Your task to perform on an android device: move an email to a new category in the gmail app Image 0: 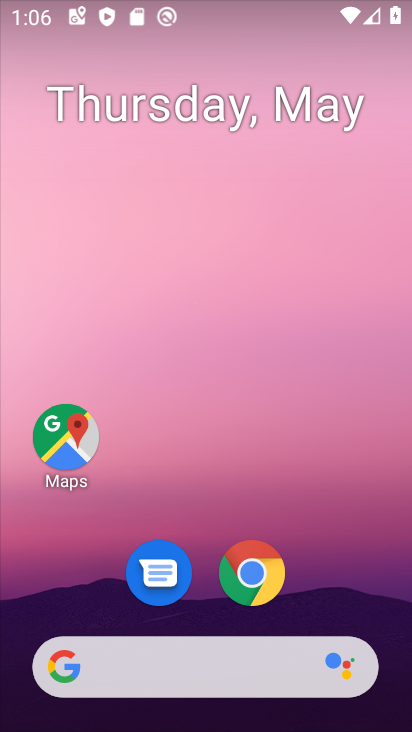
Step 0: drag from (228, 145) to (227, 39)
Your task to perform on an android device: move an email to a new category in the gmail app Image 1: 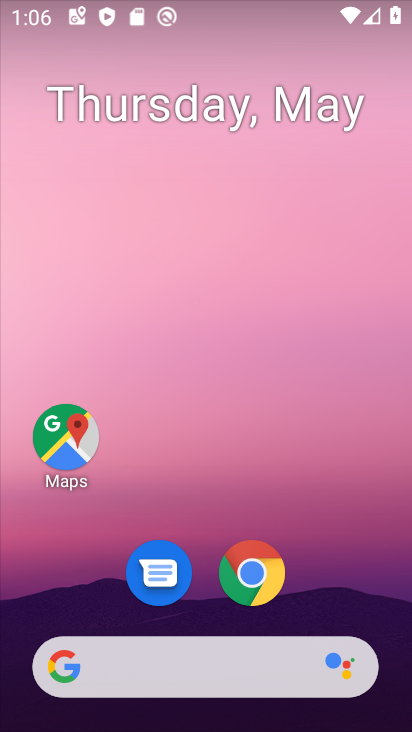
Step 1: drag from (228, 661) to (239, 70)
Your task to perform on an android device: move an email to a new category in the gmail app Image 2: 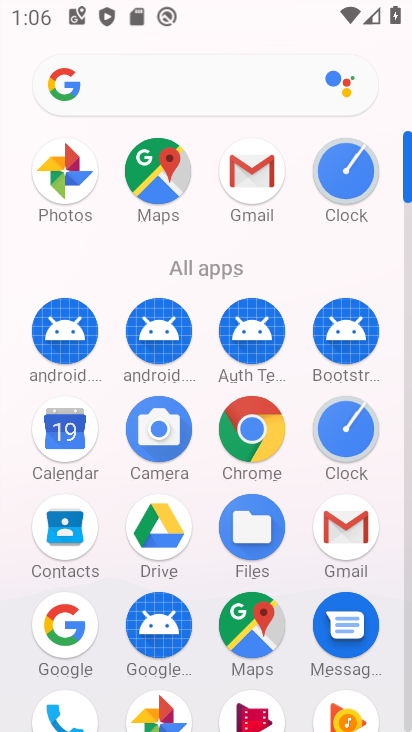
Step 2: click (241, 171)
Your task to perform on an android device: move an email to a new category in the gmail app Image 3: 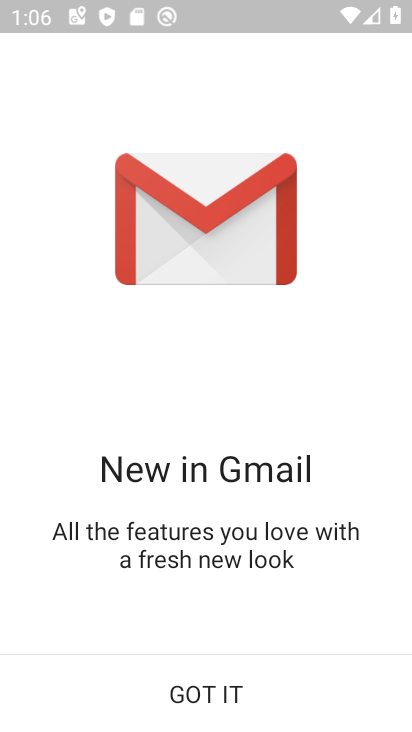
Step 3: click (162, 698)
Your task to perform on an android device: move an email to a new category in the gmail app Image 4: 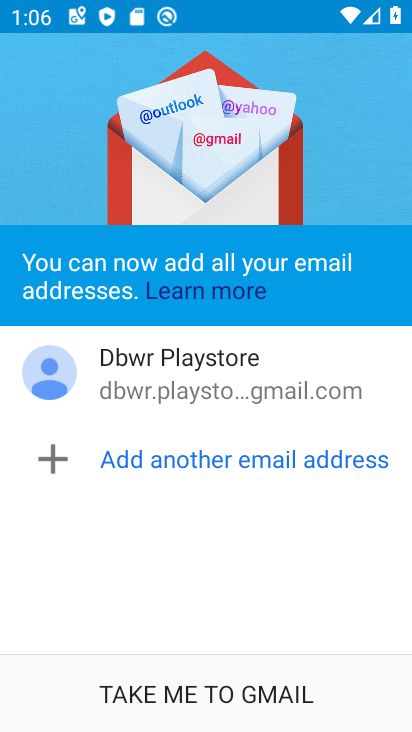
Step 4: click (162, 698)
Your task to perform on an android device: move an email to a new category in the gmail app Image 5: 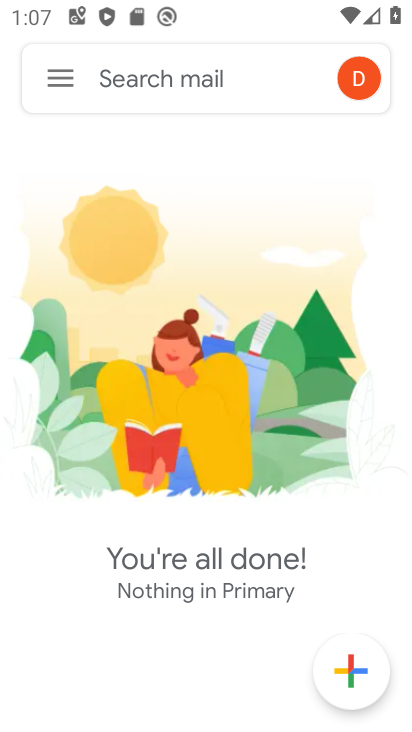
Step 5: click (56, 96)
Your task to perform on an android device: move an email to a new category in the gmail app Image 6: 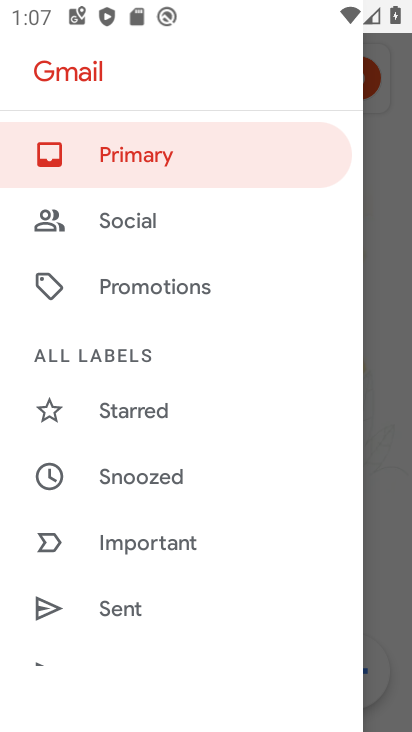
Step 6: drag from (169, 487) to (153, 169)
Your task to perform on an android device: move an email to a new category in the gmail app Image 7: 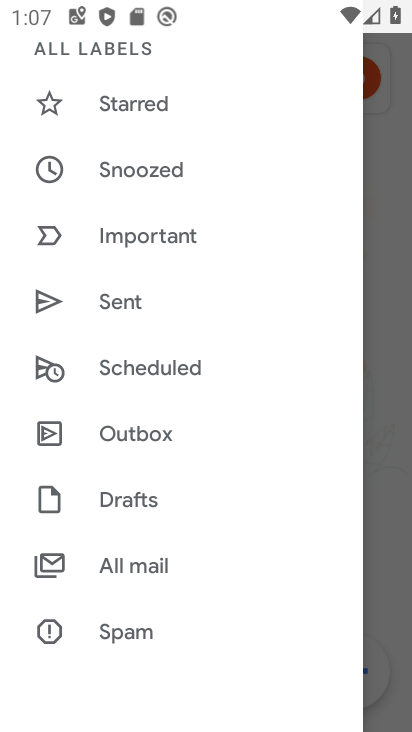
Step 7: drag from (162, 200) to (216, 709)
Your task to perform on an android device: move an email to a new category in the gmail app Image 8: 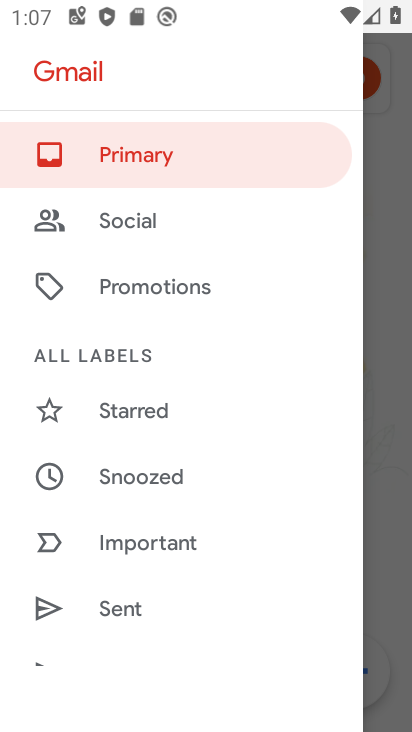
Step 8: drag from (136, 576) to (115, 5)
Your task to perform on an android device: move an email to a new category in the gmail app Image 9: 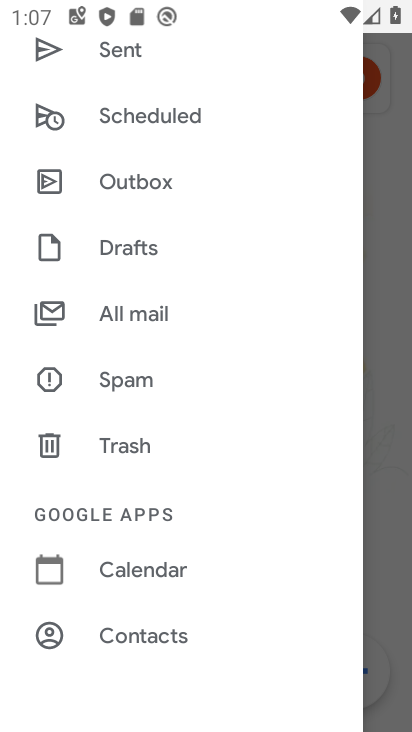
Step 9: click (112, 318)
Your task to perform on an android device: move an email to a new category in the gmail app Image 10: 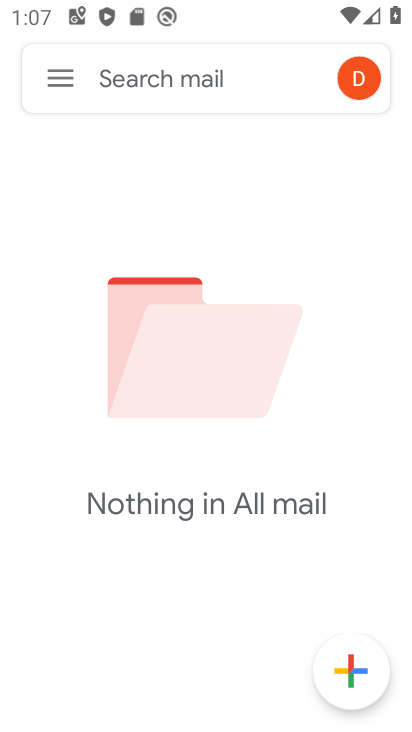
Step 10: task complete